Your task to perform on an android device: Go to CNN.com Image 0: 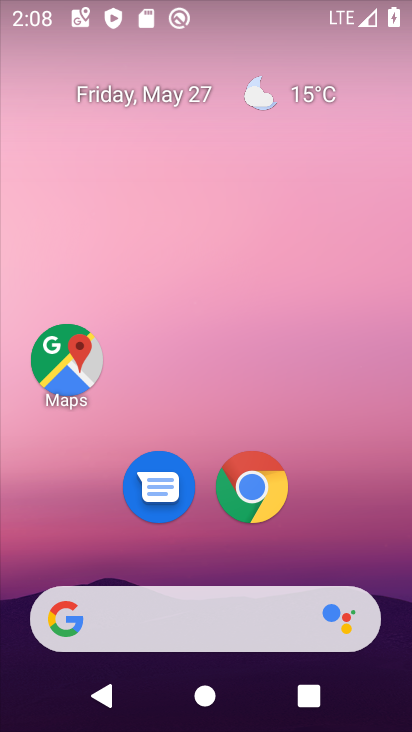
Step 0: drag from (342, 517) to (353, 100)
Your task to perform on an android device: Go to CNN.com Image 1: 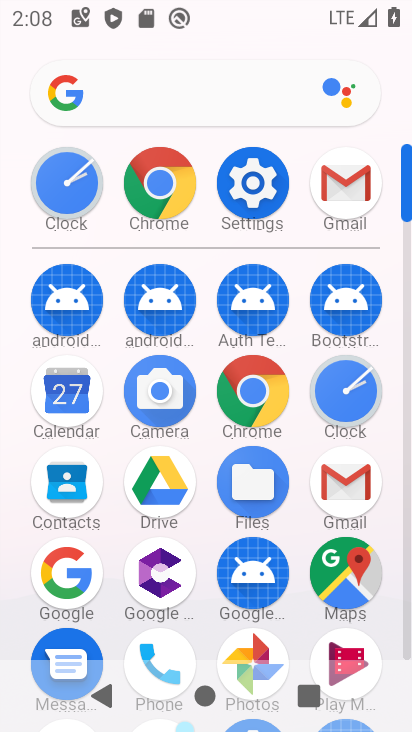
Step 1: click (161, 189)
Your task to perform on an android device: Go to CNN.com Image 2: 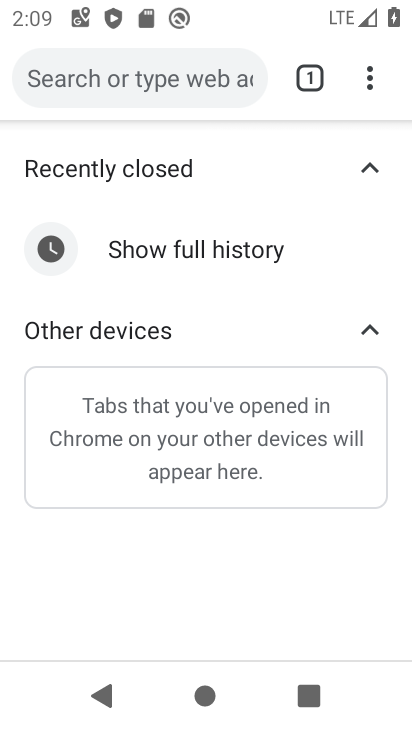
Step 2: click (199, 77)
Your task to perform on an android device: Go to CNN.com Image 3: 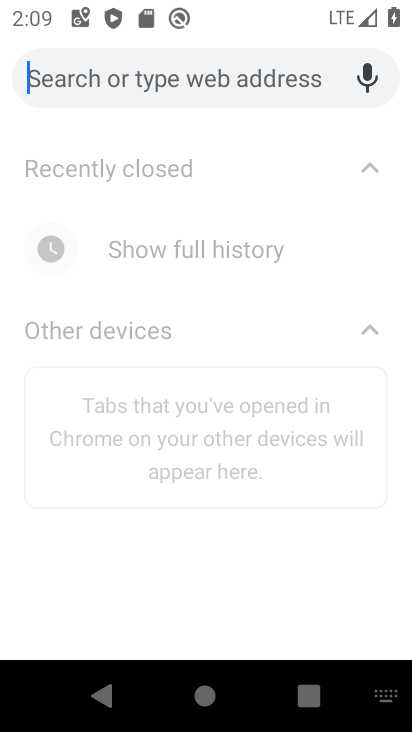
Step 3: type "cnn.com"
Your task to perform on an android device: Go to CNN.com Image 4: 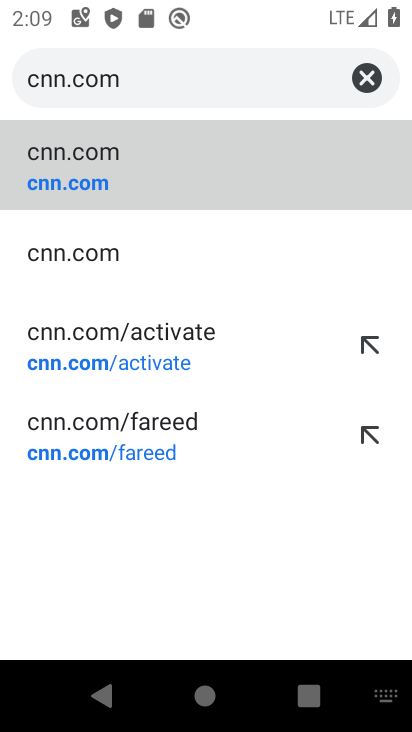
Step 4: click (72, 190)
Your task to perform on an android device: Go to CNN.com Image 5: 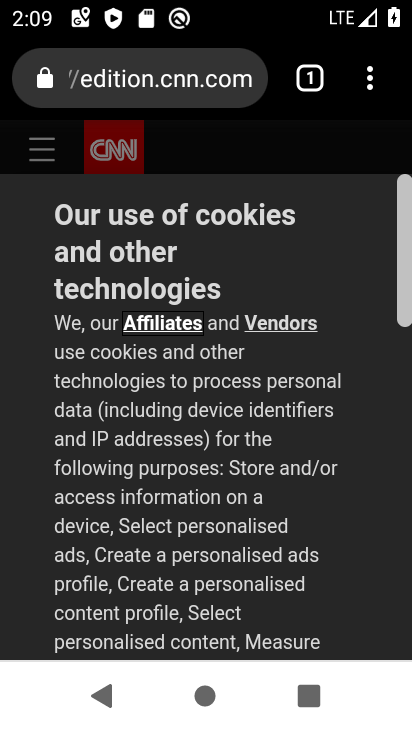
Step 5: task complete